Your task to perform on an android device: open a new tab in the chrome app Image 0: 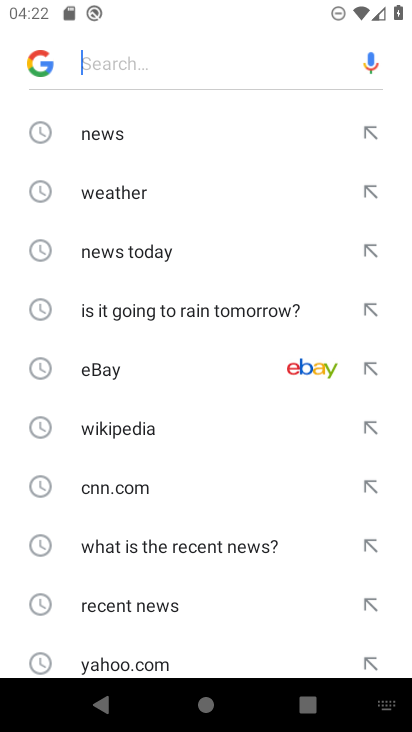
Step 0: press home button
Your task to perform on an android device: open a new tab in the chrome app Image 1: 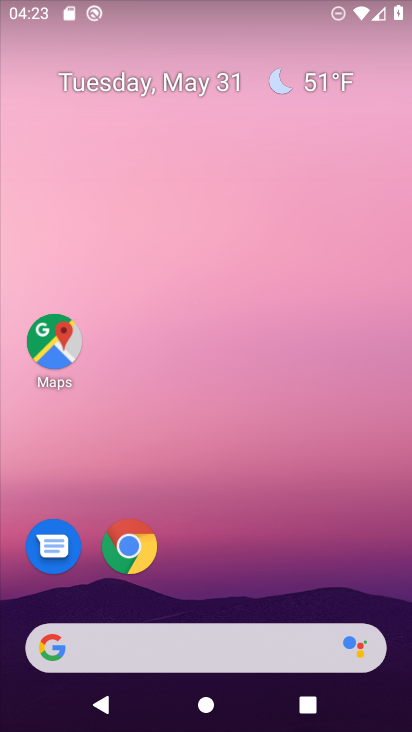
Step 1: click (136, 547)
Your task to perform on an android device: open a new tab in the chrome app Image 2: 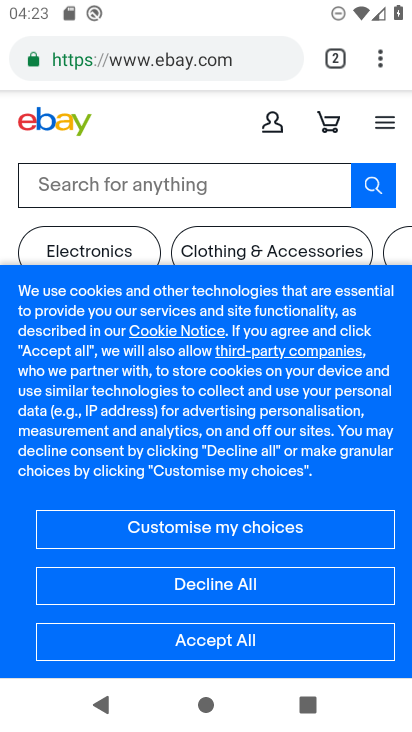
Step 2: click (212, 61)
Your task to perform on an android device: open a new tab in the chrome app Image 3: 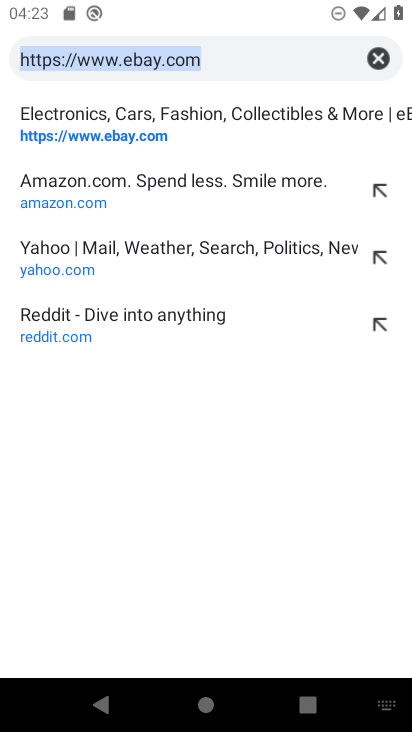
Step 3: click (369, 61)
Your task to perform on an android device: open a new tab in the chrome app Image 4: 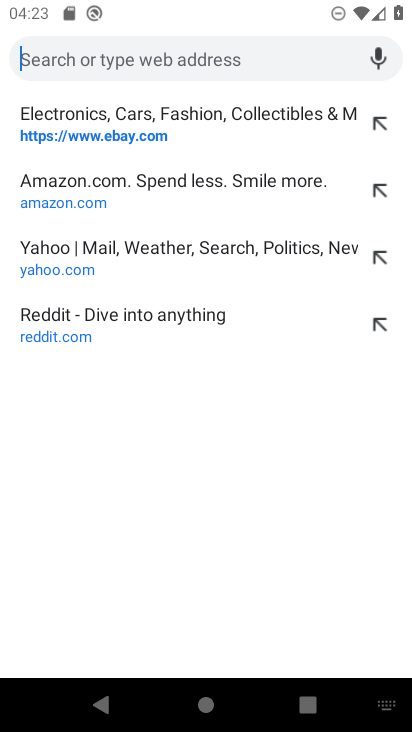
Step 4: press back button
Your task to perform on an android device: open a new tab in the chrome app Image 5: 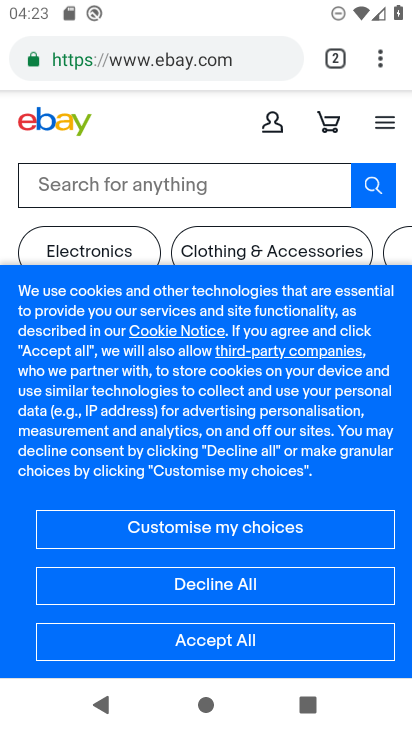
Step 5: click (338, 64)
Your task to perform on an android device: open a new tab in the chrome app Image 6: 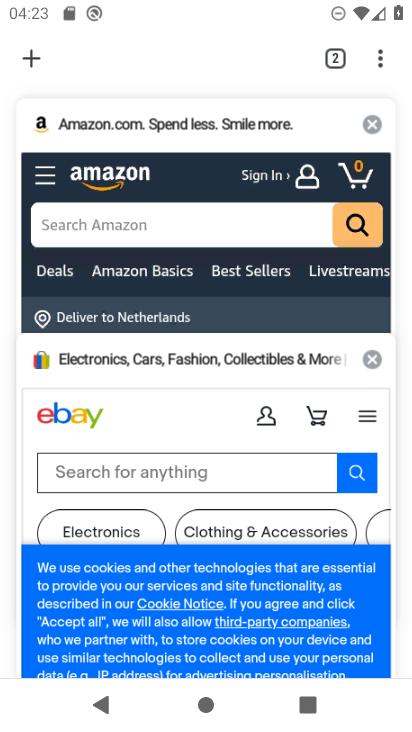
Step 6: click (21, 61)
Your task to perform on an android device: open a new tab in the chrome app Image 7: 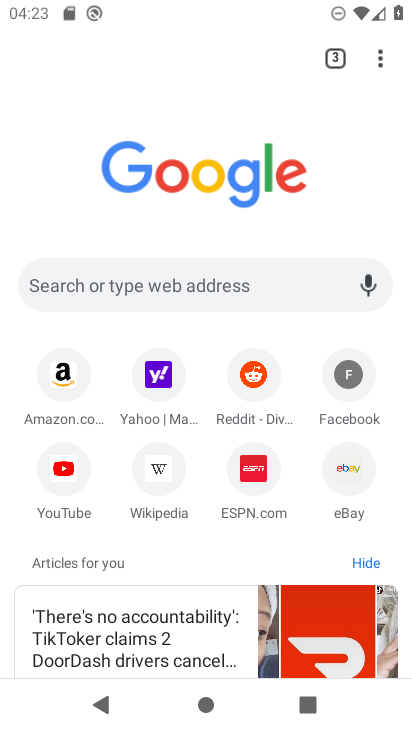
Step 7: task complete